Your task to perform on an android device: Search for alienware aurora on walmart, select the first entry, add it to the cart, then select checkout. Image 0: 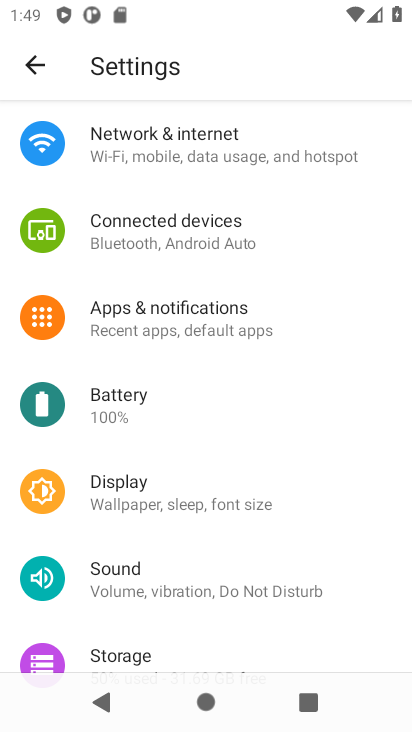
Step 0: press home button
Your task to perform on an android device: Search for alienware aurora on walmart, select the first entry, add it to the cart, then select checkout. Image 1: 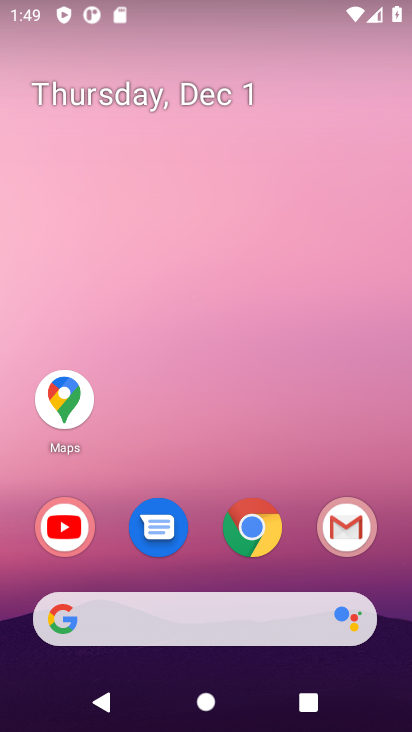
Step 1: click (258, 535)
Your task to perform on an android device: Search for alienware aurora on walmart, select the first entry, add it to the cart, then select checkout. Image 2: 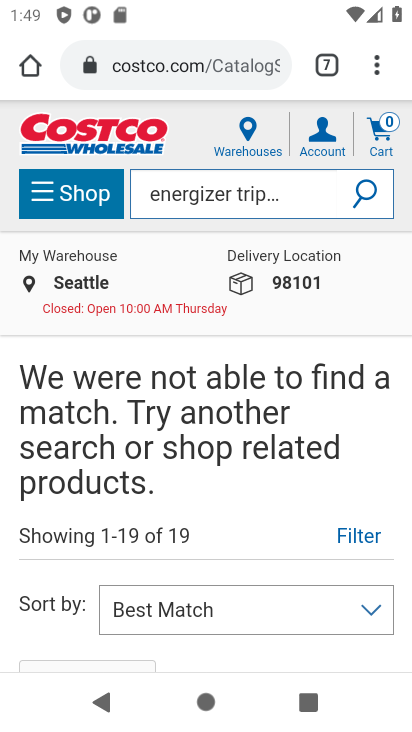
Step 2: click (168, 63)
Your task to perform on an android device: Search for alienware aurora on walmart, select the first entry, add it to the cart, then select checkout. Image 3: 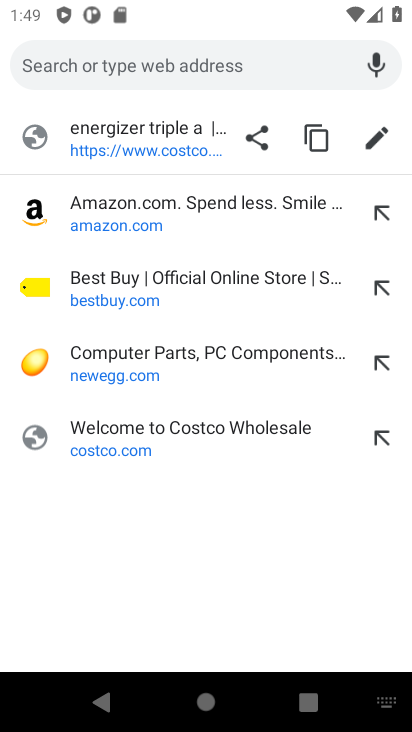
Step 3: type "walmart.com"
Your task to perform on an android device: Search for alienware aurora on walmart, select the first entry, add it to the cart, then select checkout. Image 4: 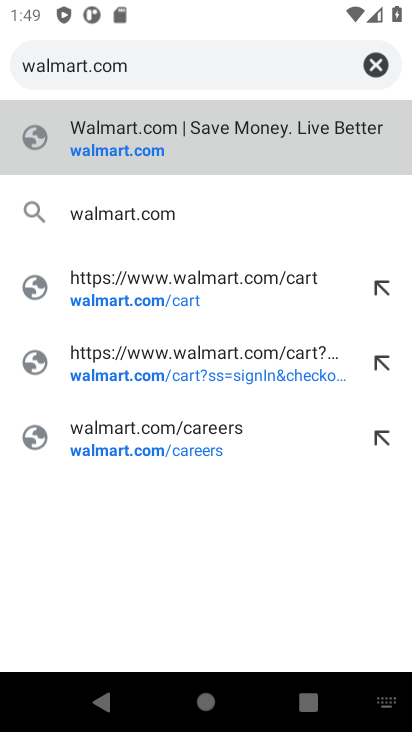
Step 4: click (121, 151)
Your task to perform on an android device: Search for alienware aurora on walmart, select the first entry, add it to the cart, then select checkout. Image 5: 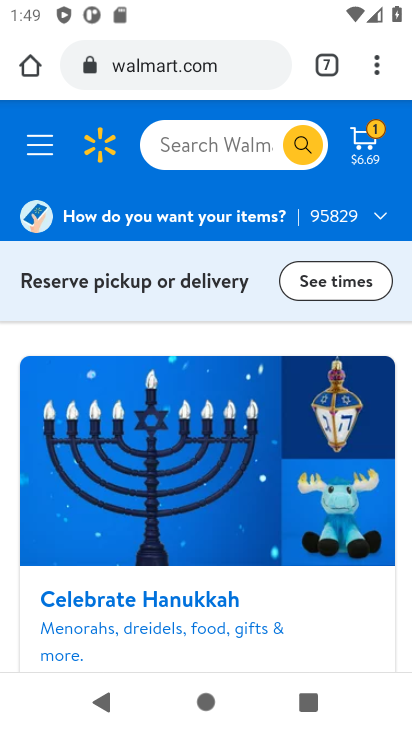
Step 5: click (198, 143)
Your task to perform on an android device: Search for alienware aurora on walmart, select the first entry, add it to the cart, then select checkout. Image 6: 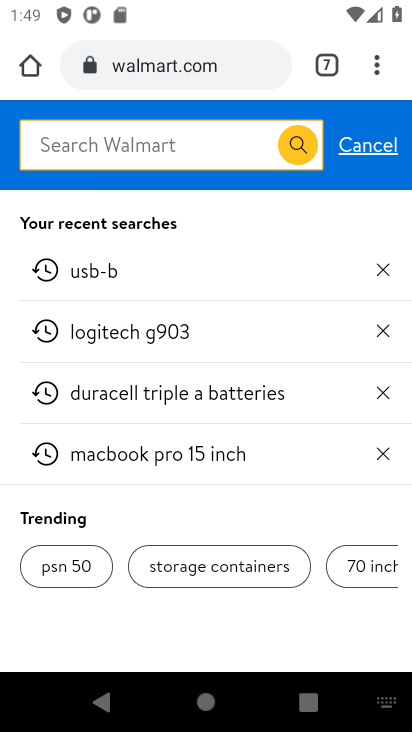
Step 6: type "alienware aurora"
Your task to perform on an android device: Search for alienware aurora on walmart, select the first entry, add it to the cart, then select checkout. Image 7: 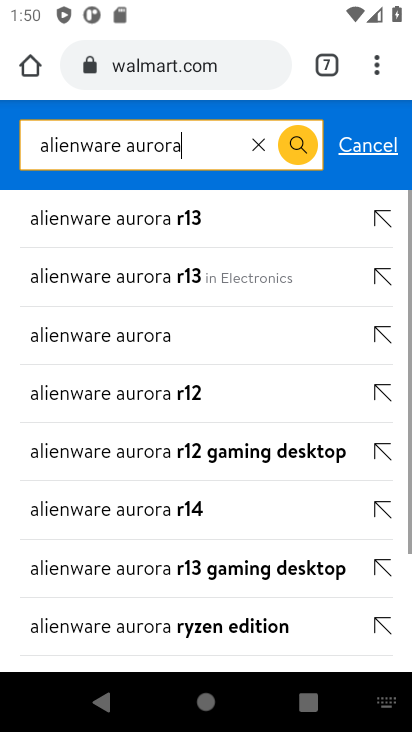
Step 7: click (96, 346)
Your task to perform on an android device: Search for alienware aurora on walmart, select the first entry, add it to the cart, then select checkout. Image 8: 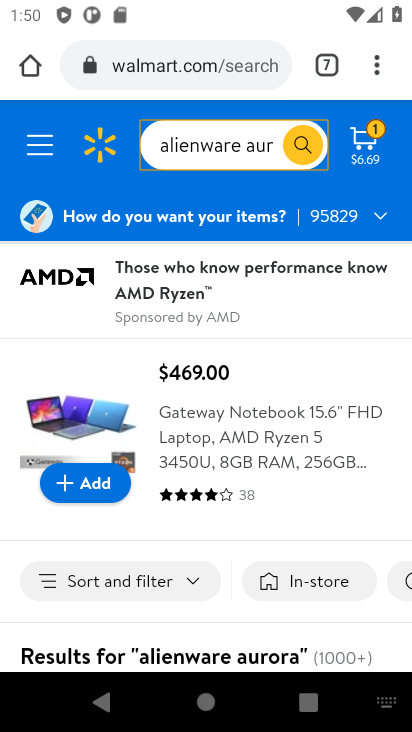
Step 8: task complete